Your task to perform on an android device: turn off location Image 0: 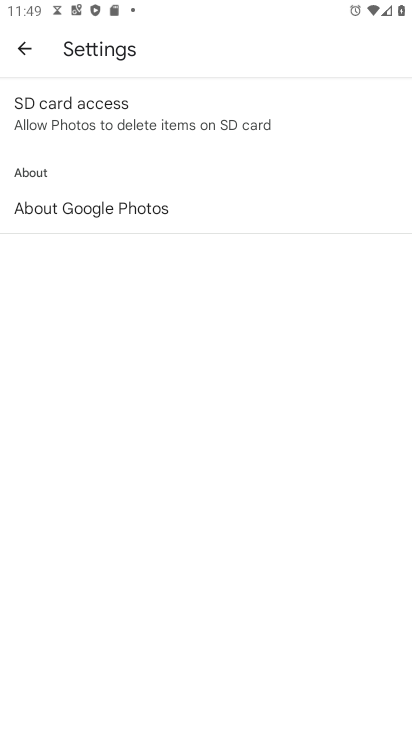
Step 0: press home button
Your task to perform on an android device: turn off location Image 1: 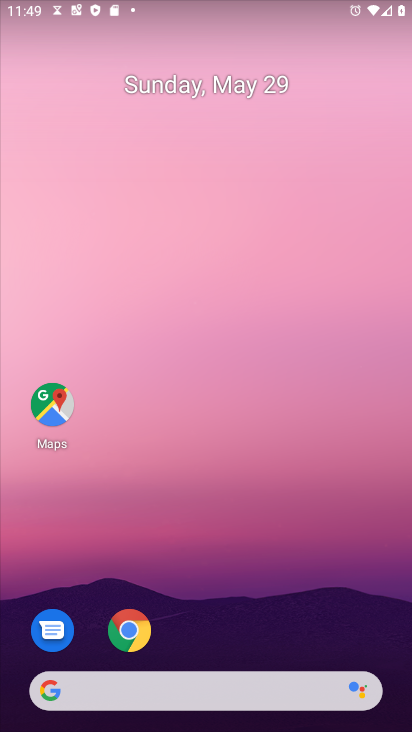
Step 1: drag from (280, 426) to (231, 6)
Your task to perform on an android device: turn off location Image 2: 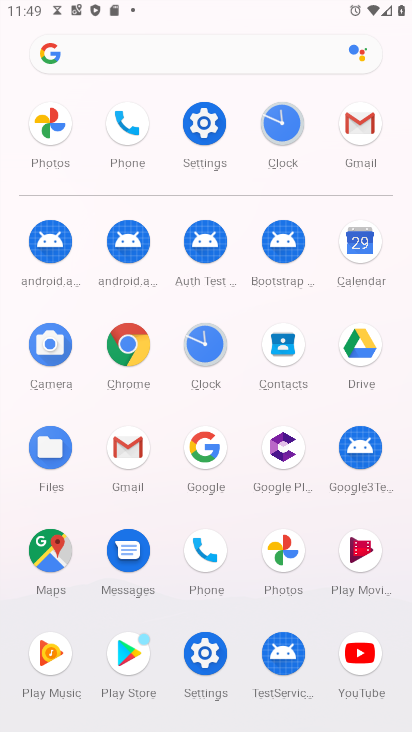
Step 2: click (191, 130)
Your task to perform on an android device: turn off location Image 3: 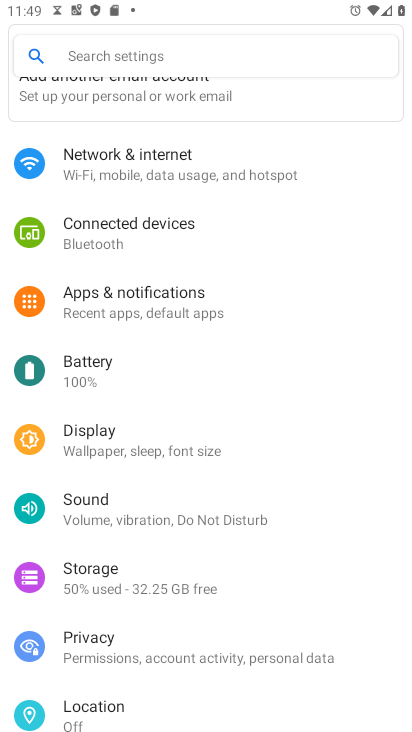
Step 3: click (84, 692)
Your task to perform on an android device: turn off location Image 4: 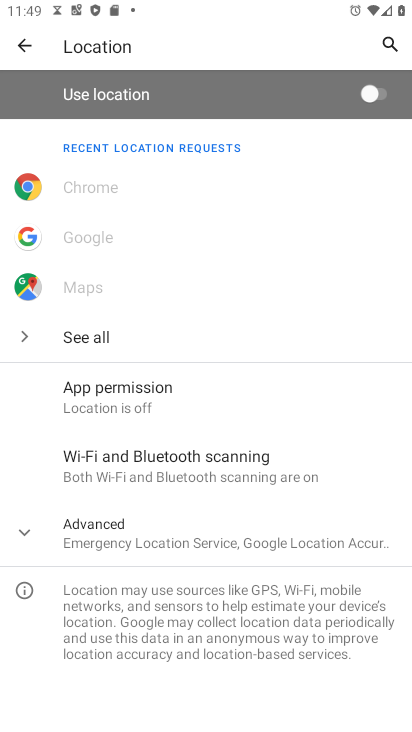
Step 4: task complete